Your task to perform on an android device: move a message to another label in the gmail app Image 0: 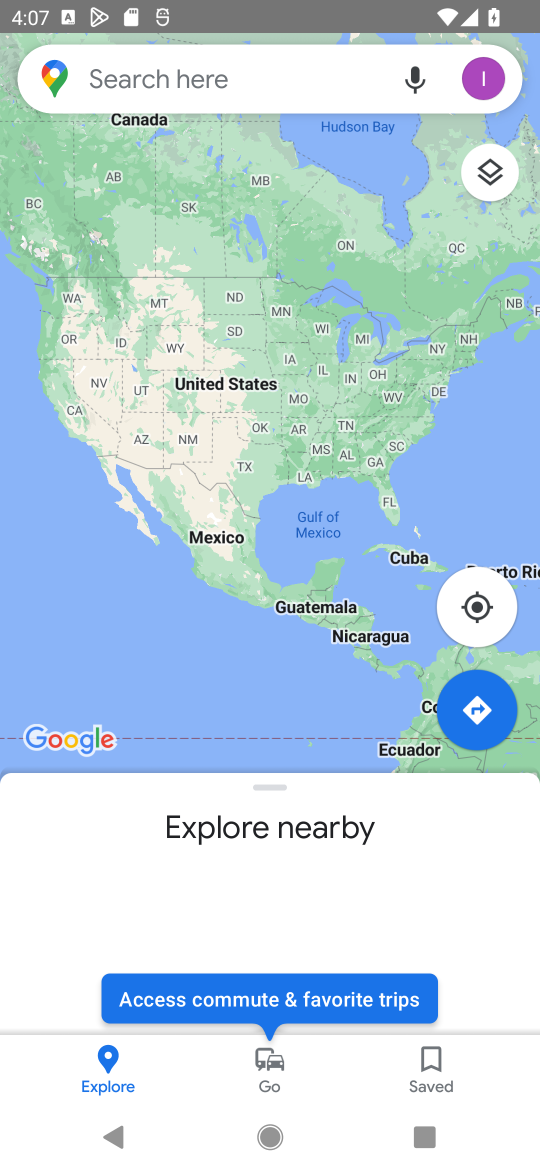
Step 0: click (259, 1137)
Your task to perform on an android device: move a message to another label in the gmail app Image 1: 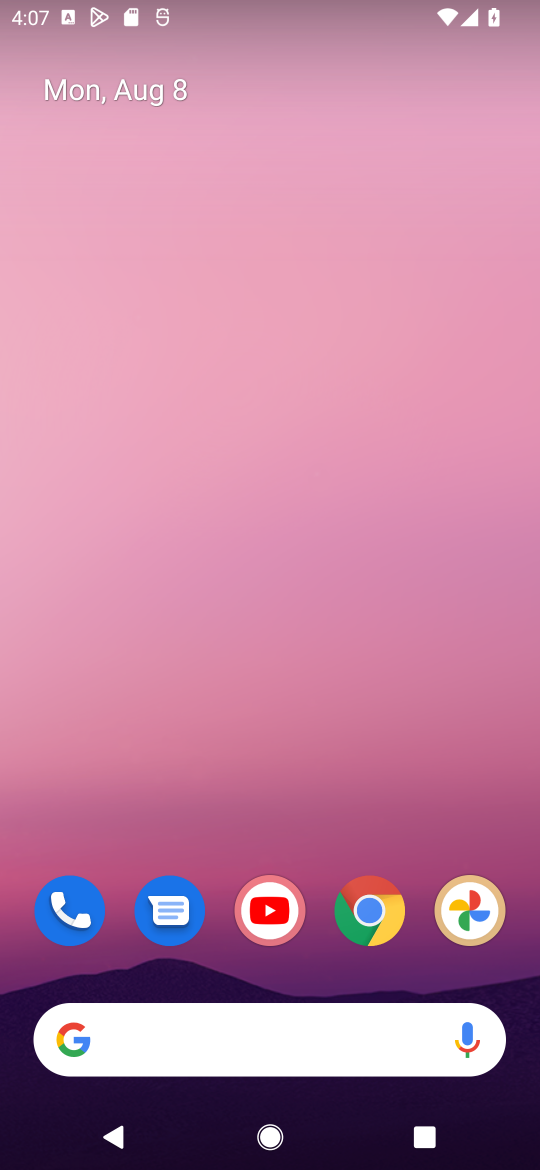
Step 1: drag from (154, 826) to (139, 16)
Your task to perform on an android device: move a message to another label in the gmail app Image 2: 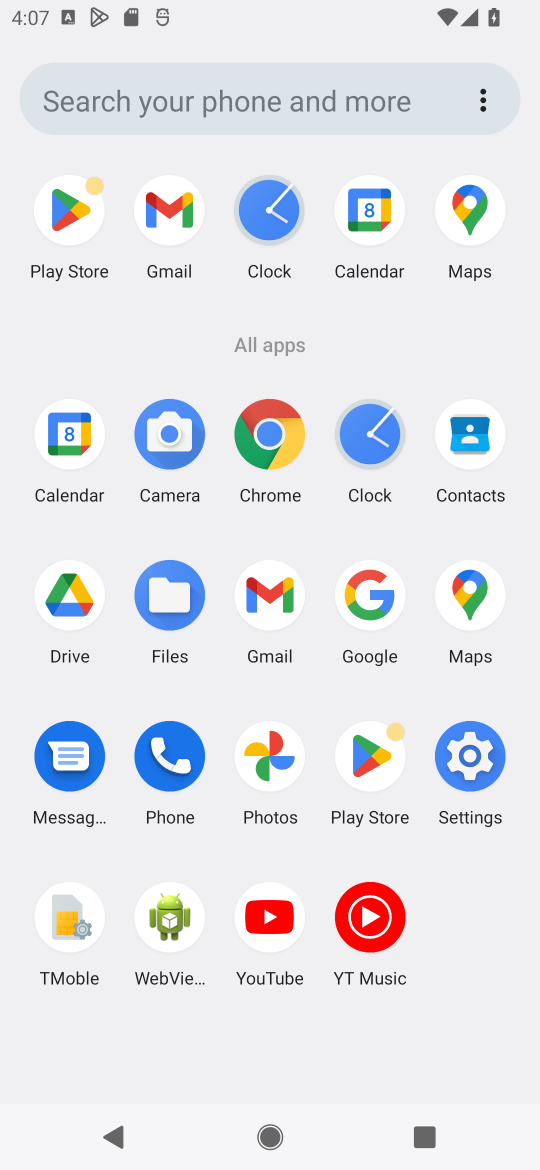
Step 2: click (267, 613)
Your task to perform on an android device: move a message to another label in the gmail app Image 3: 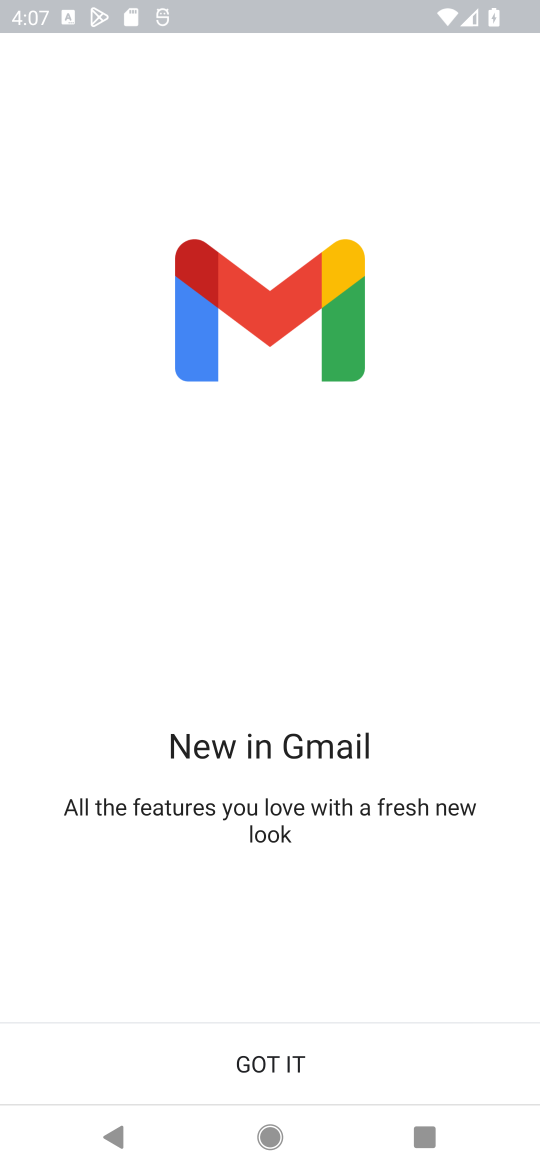
Step 3: click (271, 1081)
Your task to perform on an android device: move a message to another label in the gmail app Image 4: 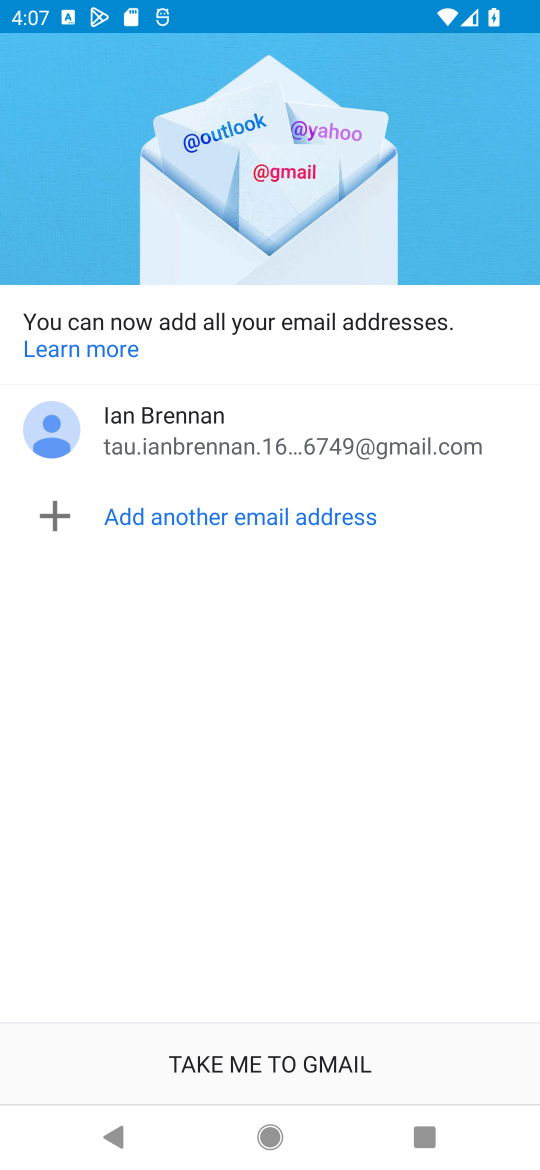
Step 4: click (243, 451)
Your task to perform on an android device: move a message to another label in the gmail app Image 5: 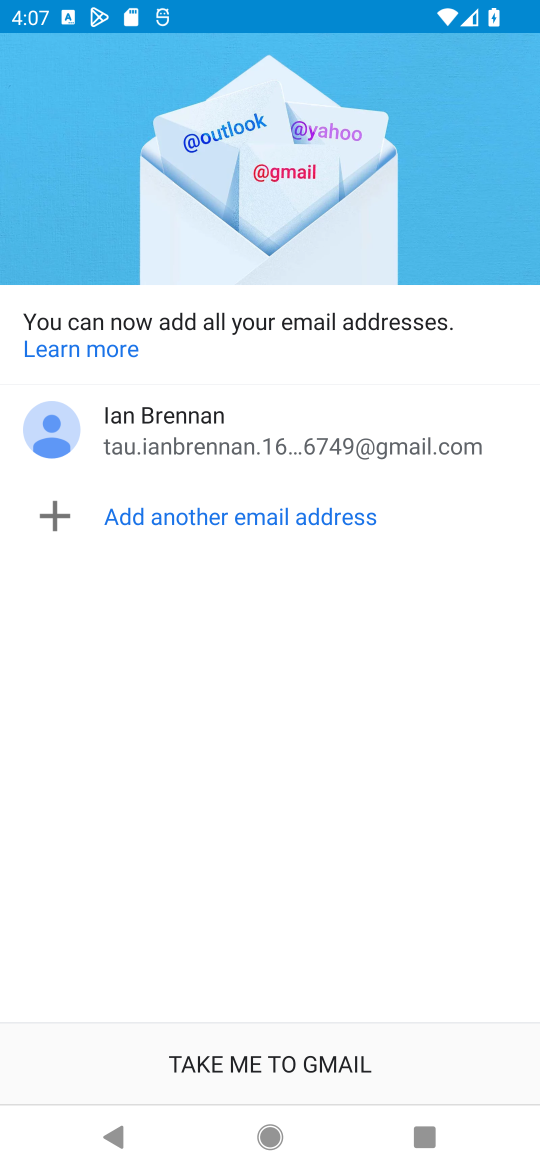
Step 5: click (285, 1054)
Your task to perform on an android device: move a message to another label in the gmail app Image 6: 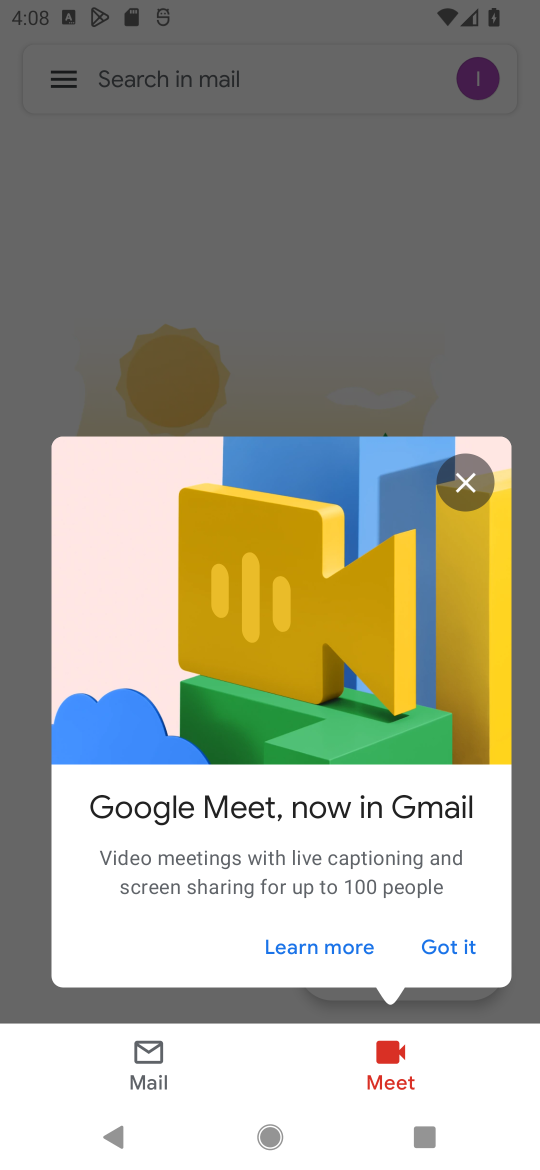
Step 6: click (155, 1065)
Your task to perform on an android device: move a message to another label in the gmail app Image 7: 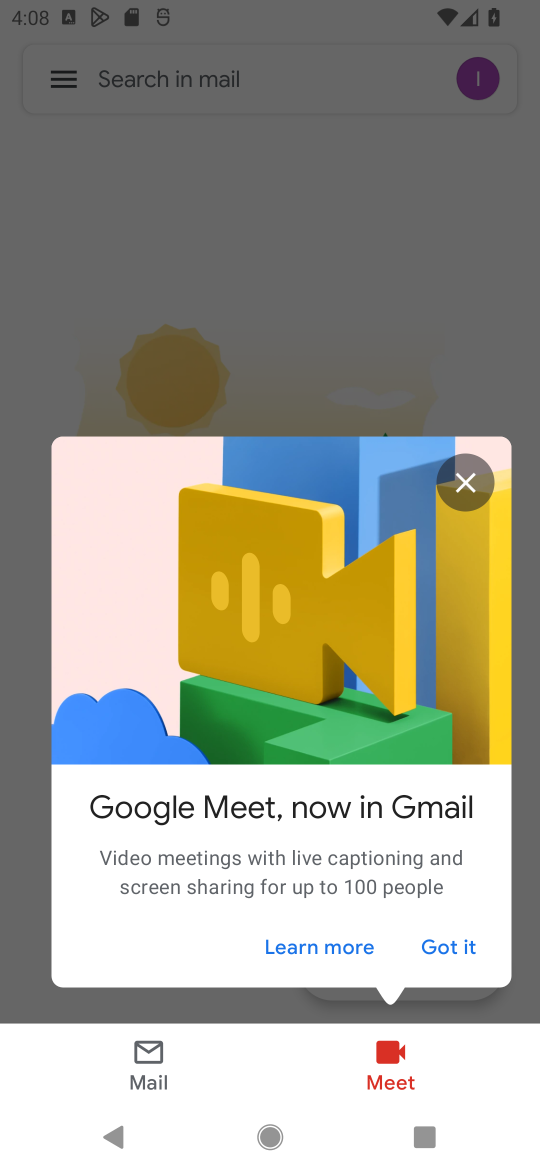
Step 7: click (438, 947)
Your task to perform on an android device: move a message to another label in the gmail app Image 8: 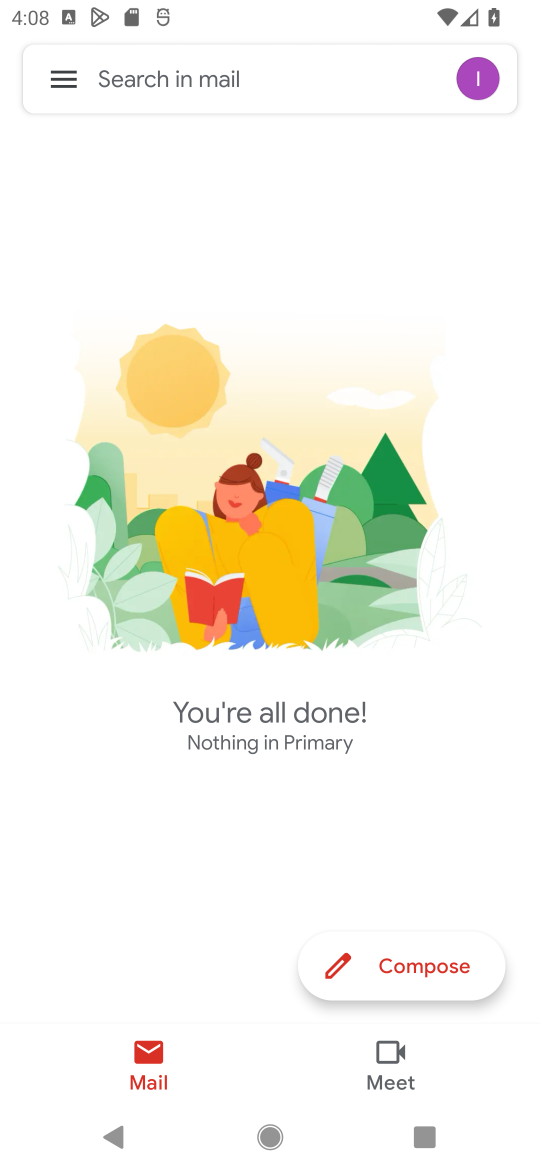
Step 8: click (59, 92)
Your task to perform on an android device: move a message to another label in the gmail app Image 9: 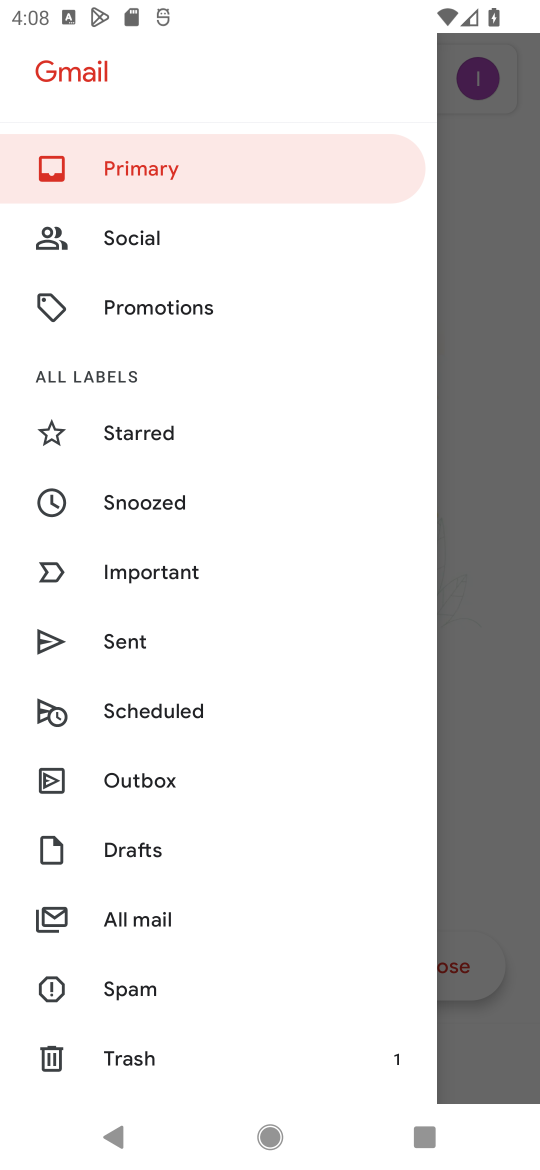
Step 9: click (121, 924)
Your task to perform on an android device: move a message to another label in the gmail app Image 10: 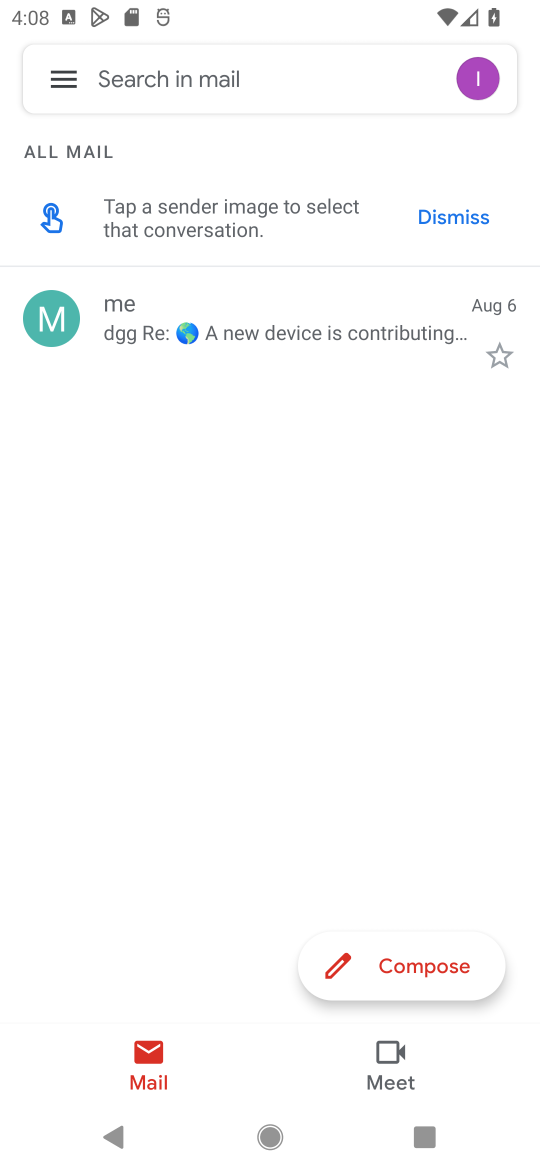
Step 10: click (259, 268)
Your task to perform on an android device: move a message to another label in the gmail app Image 11: 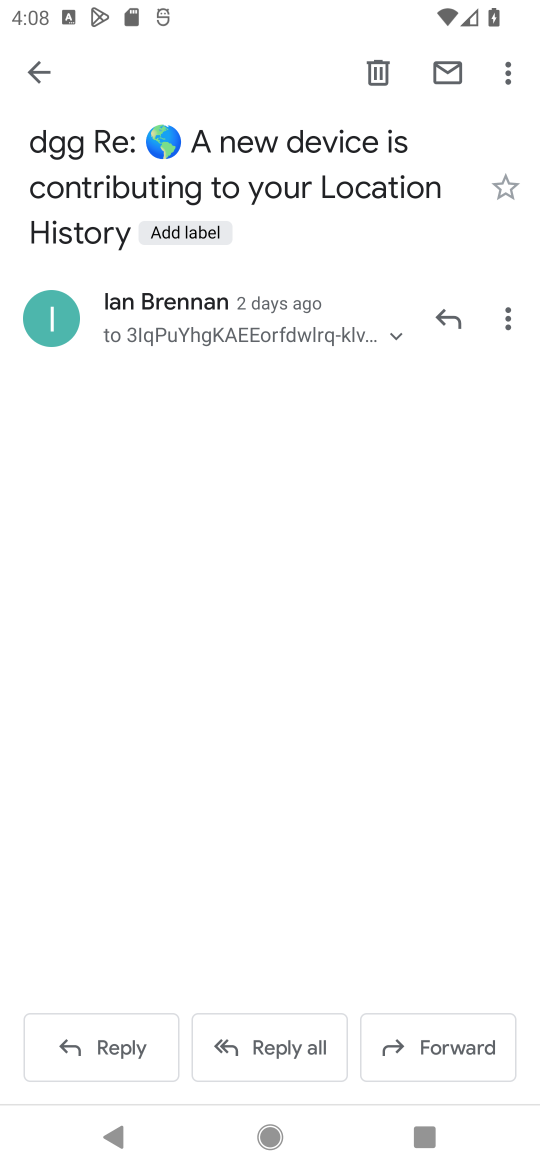
Step 11: click (494, 90)
Your task to perform on an android device: move a message to another label in the gmail app Image 12: 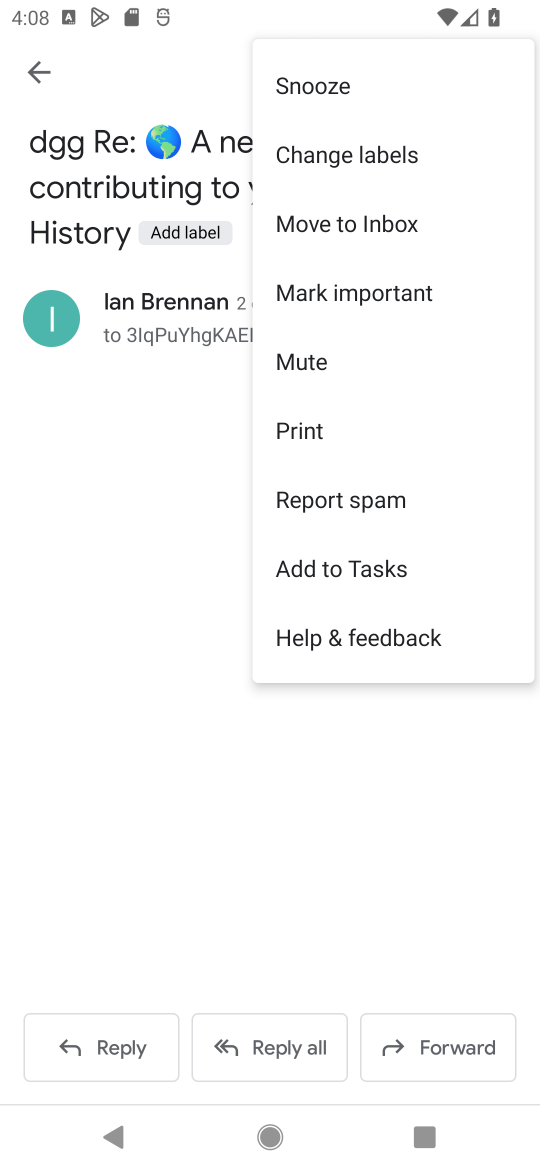
Step 12: click (364, 237)
Your task to perform on an android device: move a message to another label in the gmail app Image 13: 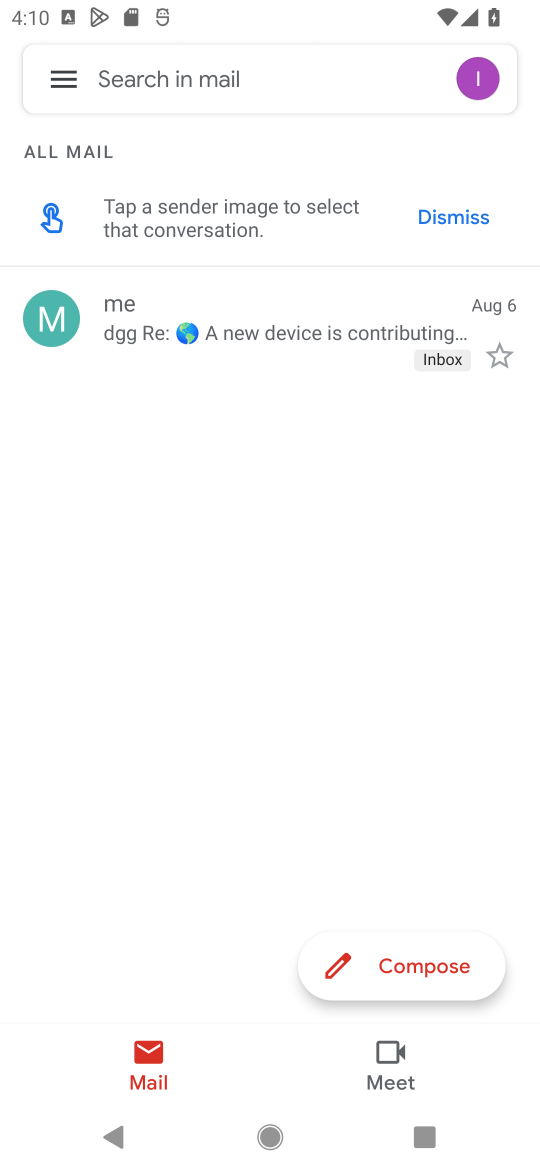
Step 13: task complete